Your task to perform on an android device: Clear all items from cart on ebay. Add lenovo thinkpad to the cart on ebay, then select checkout. Image 0: 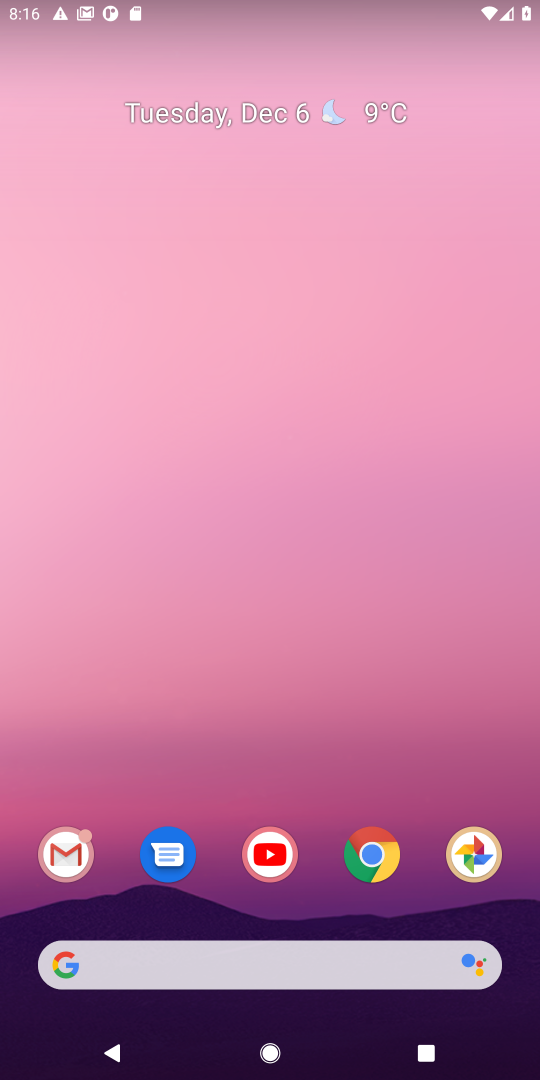
Step 0: click (367, 851)
Your task to perform on an android device: Clear all items from cart on ebay. Add lenovo thinkpad to the cart on ebay, then select checkout. Image 1: 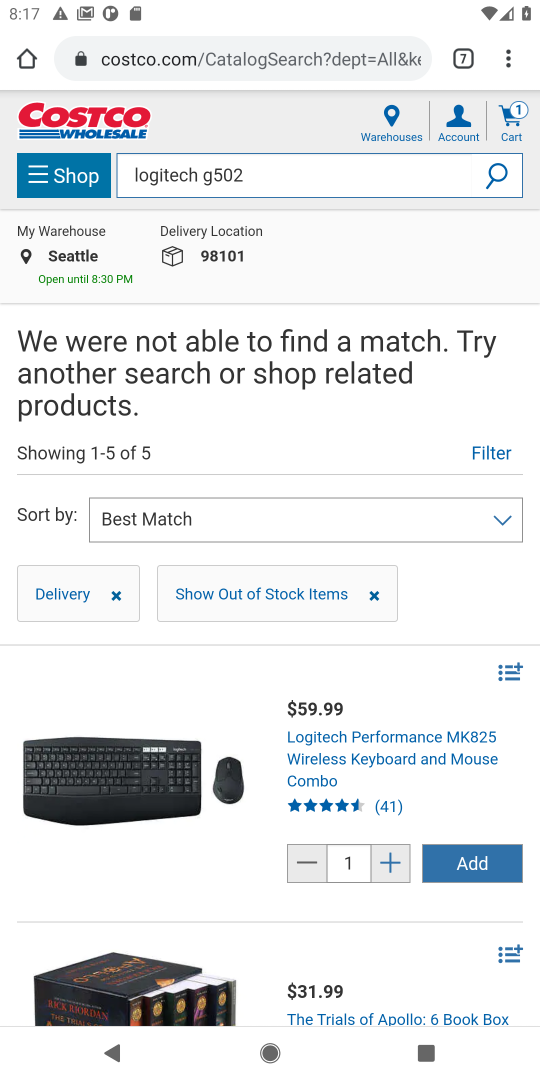
Step 1: click (463, 48)
Your task to perform on an android device: Clear all items from cart on ebay. Add lenovo thinkpad to the cart on ebay, then select checkout. Image 2: 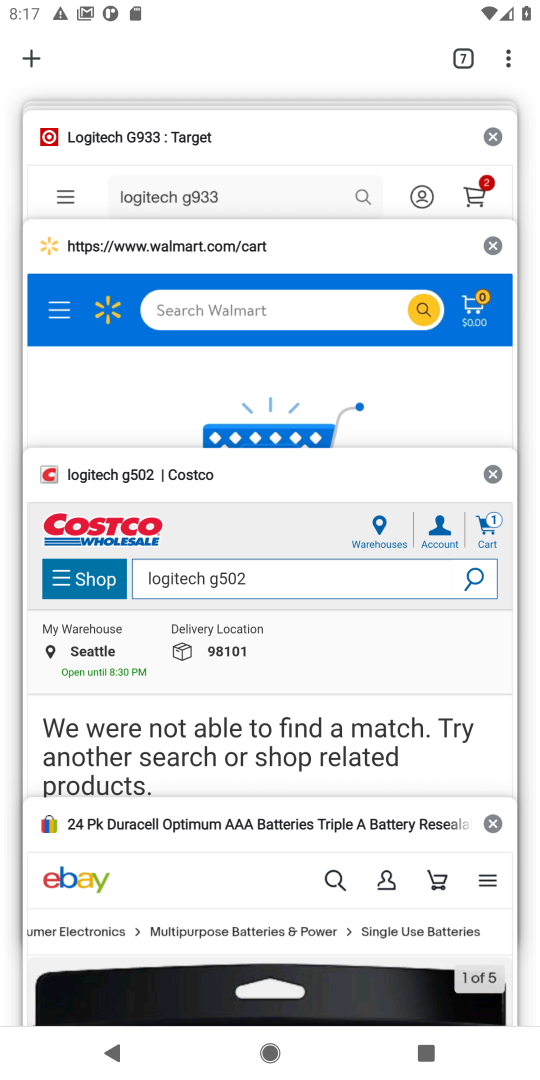
Step 2: click (155, 963)
Your task to perform on an android device: Clear all items from cart on ebay. Add lenovo thinkpad to the cart on ebay, then select checkout. Image 3: 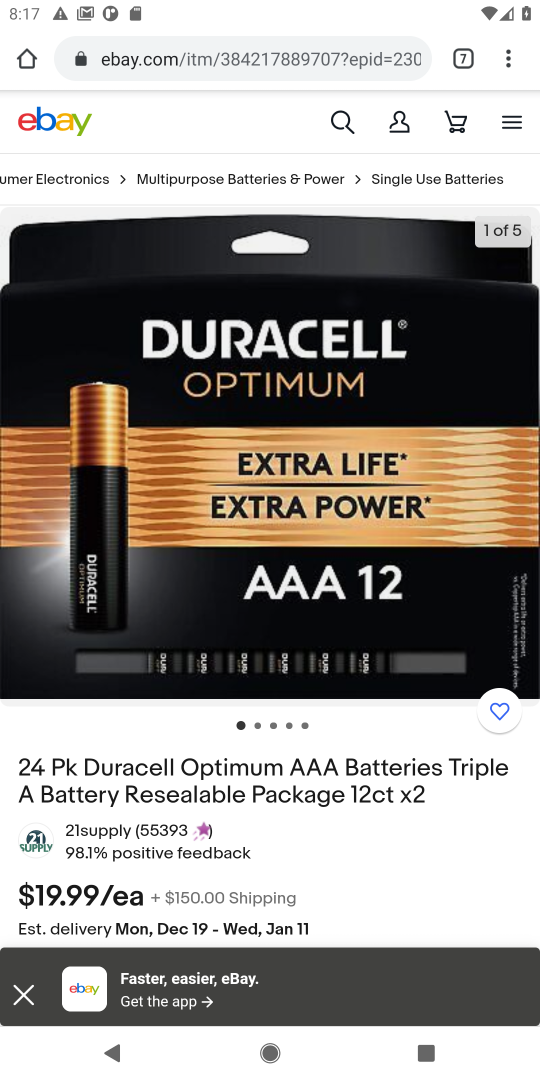
Step 3: click (467, 125)
Your task to perform on an android device: Clear all items from cart on ebay. Add lenovo thinkpad to the cart on ebay, then select checkout. Image 4: 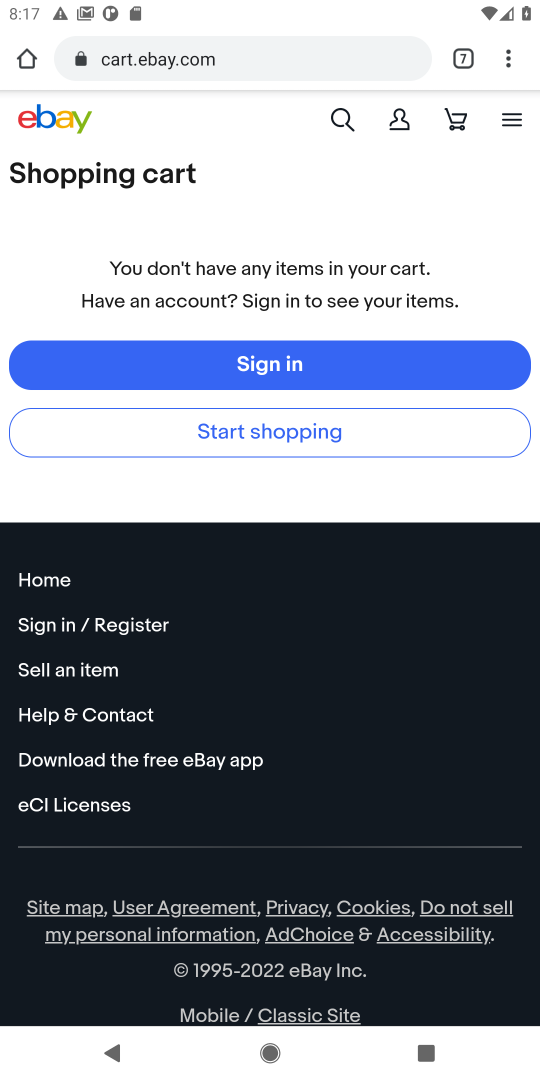
Step 4: click (345, 110)
Your task to perform on an android device: Clear all items from cart on ebay. Add lenovo thinkpad to the cart on ebay, then select checkout. Image 5: 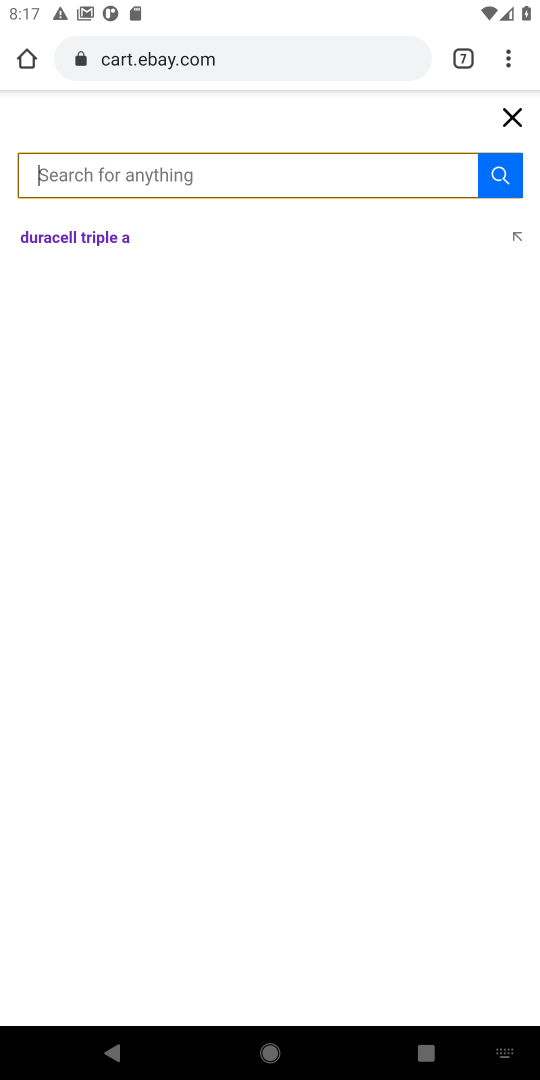
Step 5: type "lenovo thinkpad"
Your task to perform on an android device: Clear all items from cart on ebay. Add lenovo thinkpad to the cart on ebay, then select checkout. Image 6: 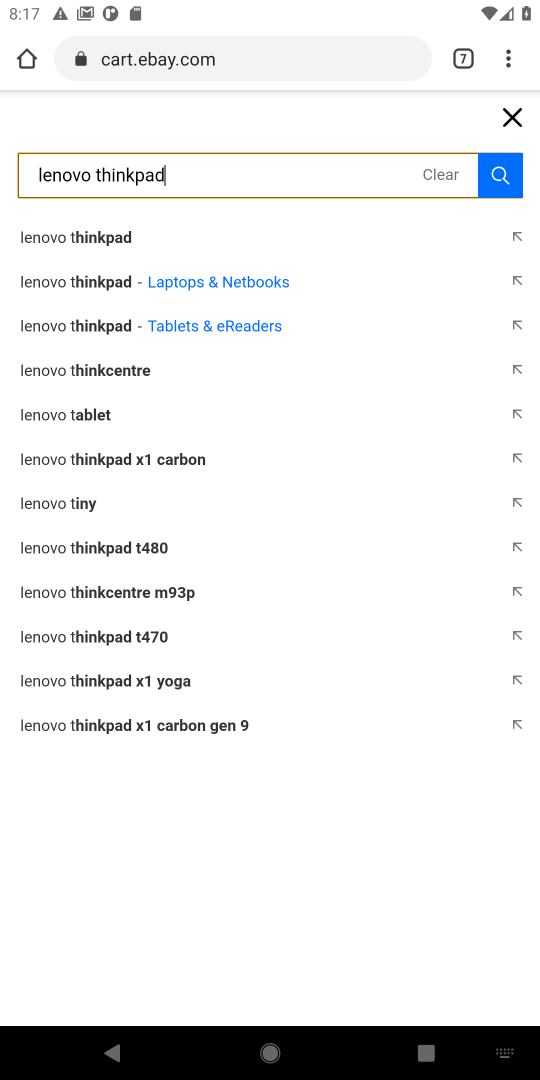
Step 6: click (107, 283)
Your task to perform on an android device: Clear all items from cart on ebay. Add lenovo thinkpad to the cart on ebay, then select checkout. Image 7: 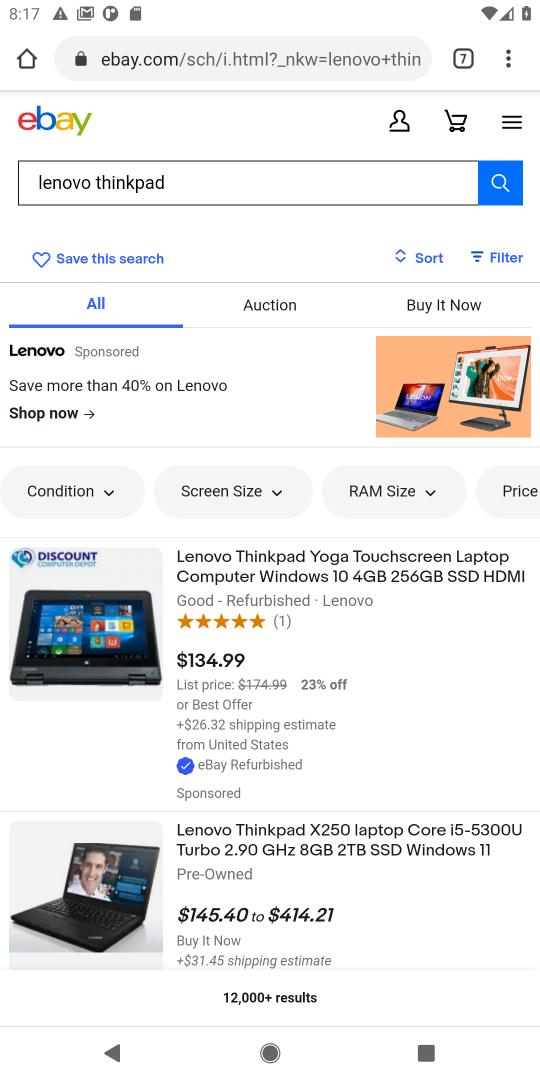
Step 7: click (299, 592)
Your task to perform on an android device: Clear all items from cart on ebay. Add lenovo thinkpad to the cart on ebay, then select checkout. Image 8: 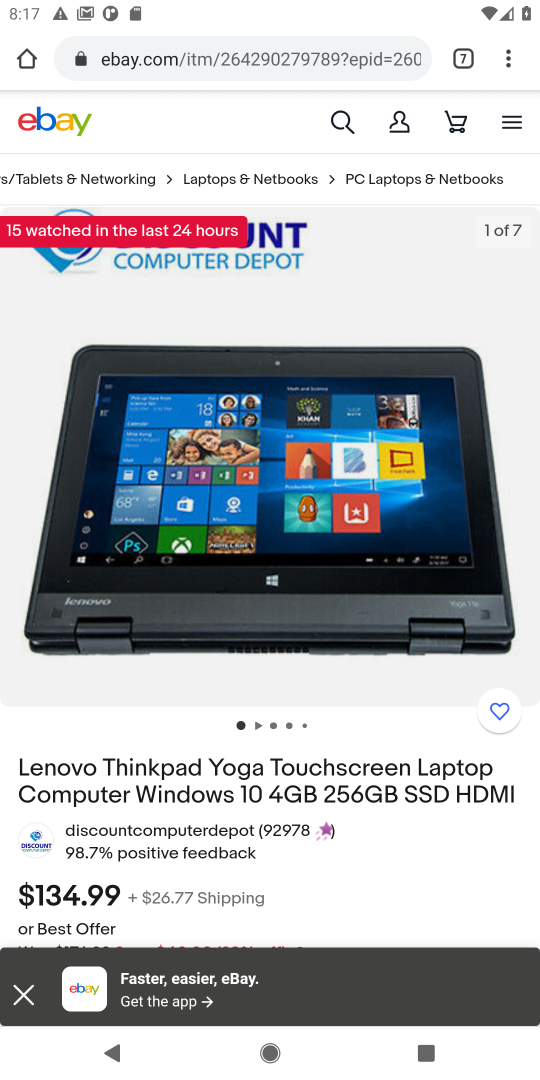
Step 8: drag from (336, 907) to (347, 560)
Your task to perform on an android device: Clear all items from cart on ebay. Add lenovo thinkpad to the cart on ebay, then select checkout. Image 9: 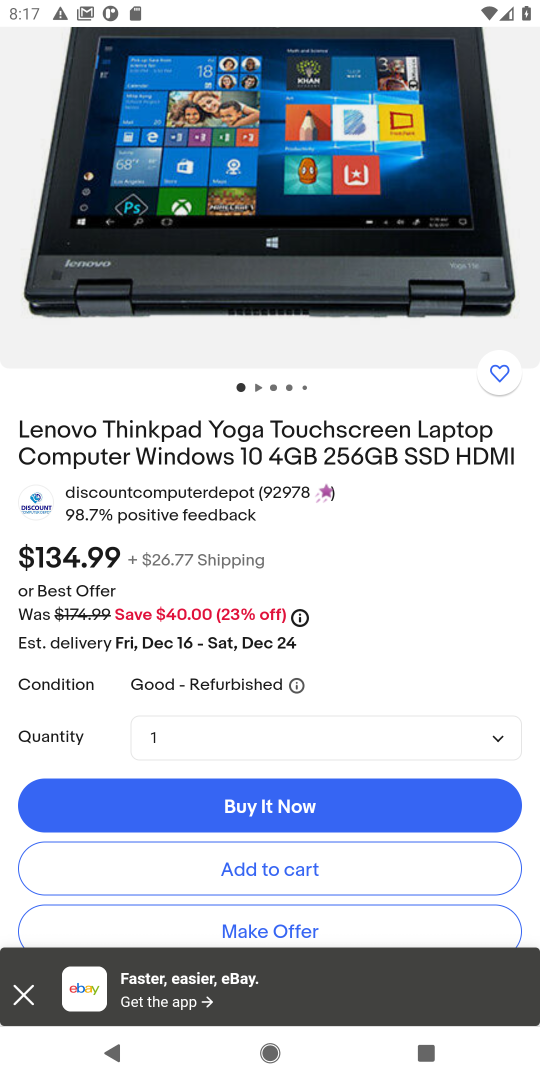
Step 9: click (317, 869)
Your task to perform on an android device: Clear all items from cart on ebay. Add lenovo thinkpad to the cart on ebay, then select checkout. Image 10: 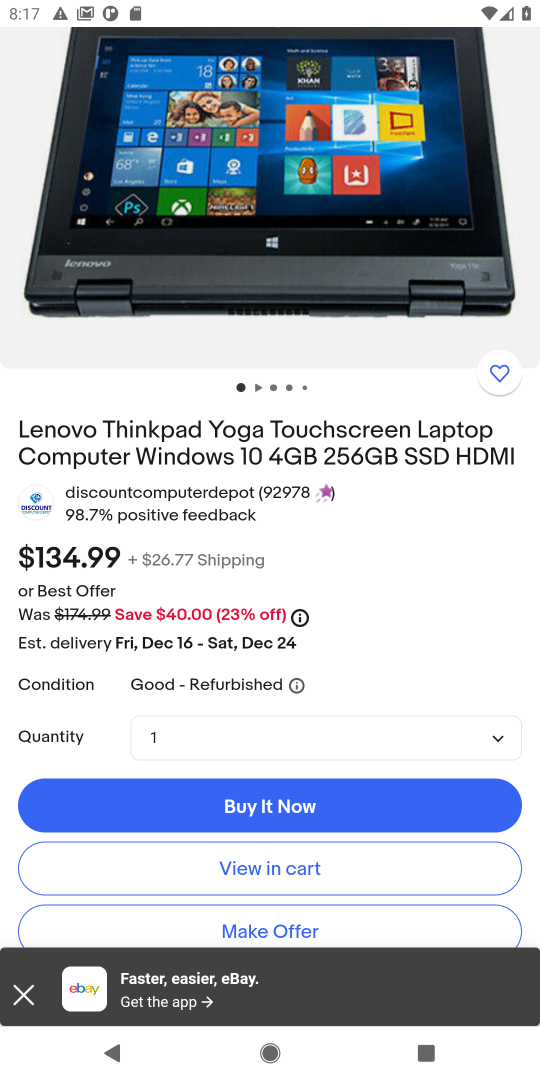
Step 10: click (317, 869)
Your task to perform on an android device: Clear all items from cart on ebay. Add lenovo thinkpad to the cart on ebay, then select checkout. Image 11: 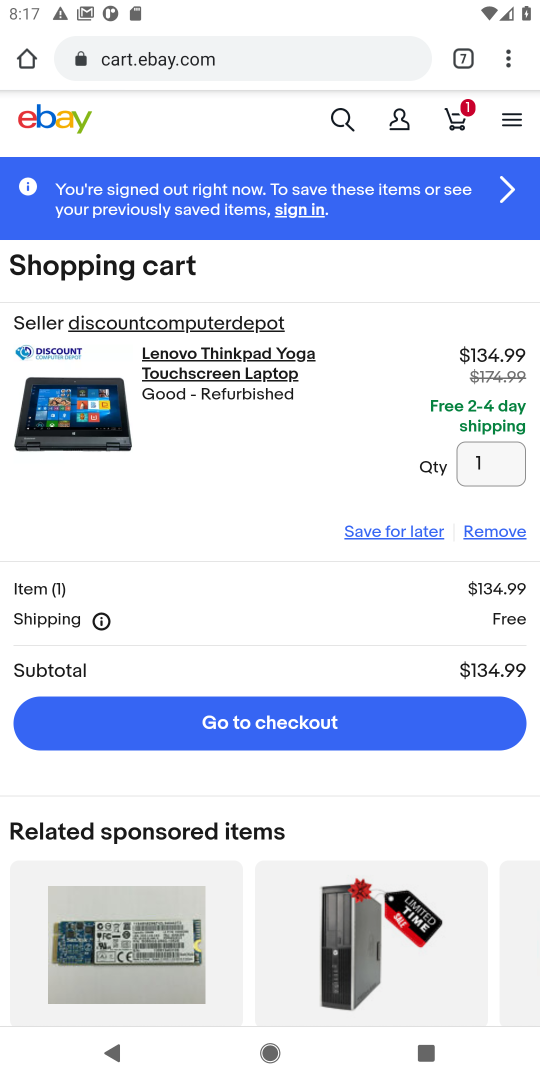
Step 11: click (310, 727)
Your task to perform on an android device: Clear all items from cart on ebay. Add lenovo thinkpad to the cart on ebay, then select checkout. Image 12: 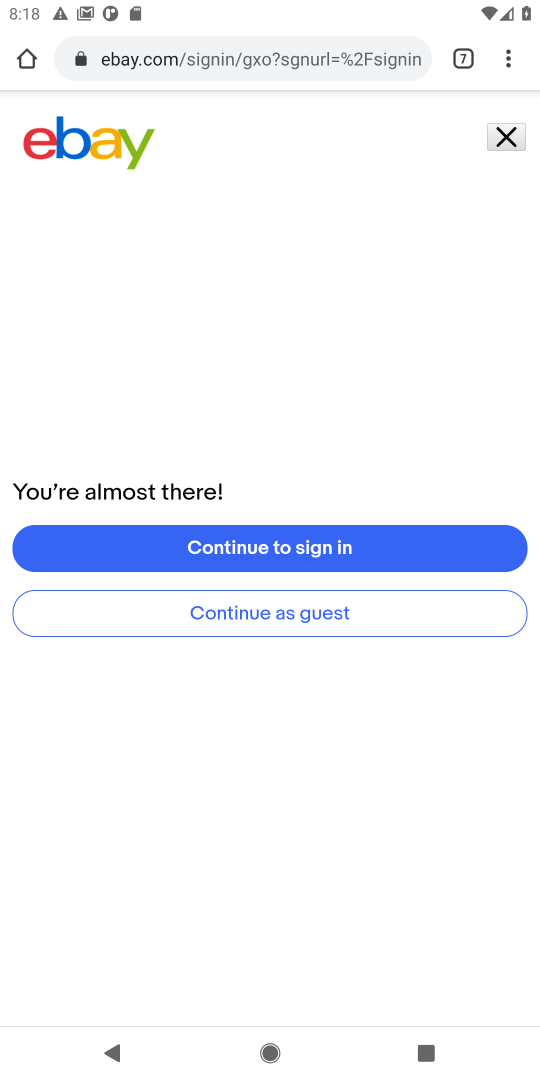
Step 12: task complete